Your task to perform on an android device: change keyboard looks Image 0: 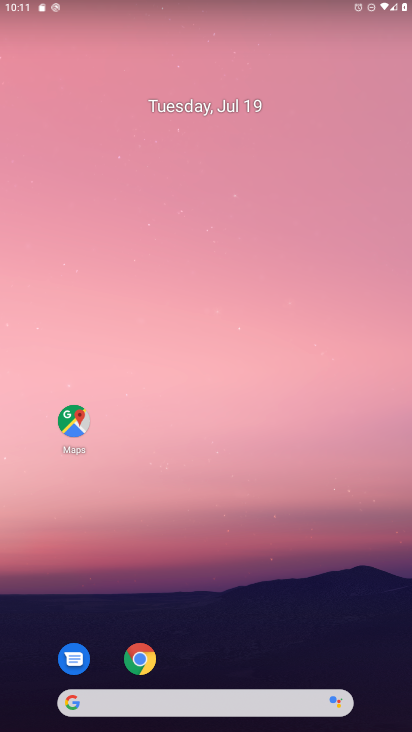
Step 0: drag from (270, 660) to (250, 201)
Your task to perform on an android device: change keyboard looks Image 1: 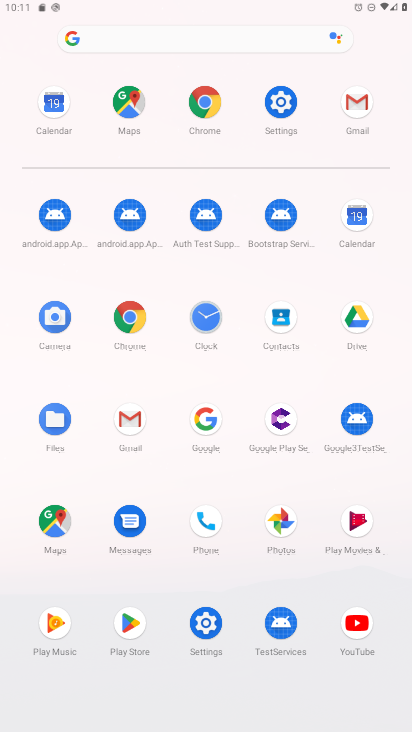
Step 1: click (278, 101)
Your task to perform on an android device: change keyboard looks Image 2: 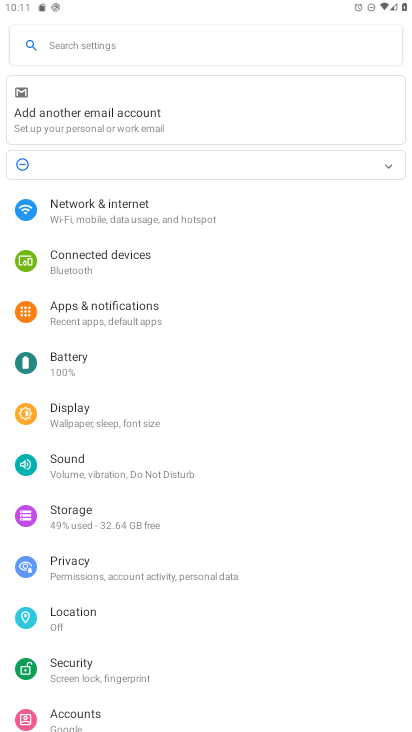
Step 2: drag from (126, 614) to (143, 256)
Your task to perform on an android device: change keyboard looks Image 3: 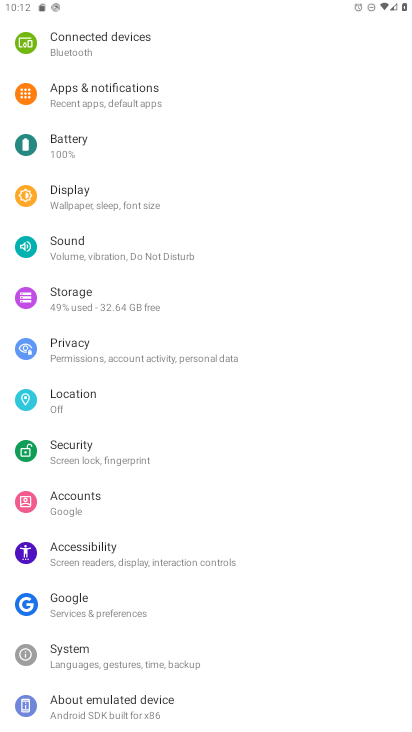
Step 3: click (108, 547)
Your task to perform on an android device: change keyboard looks Image 4: 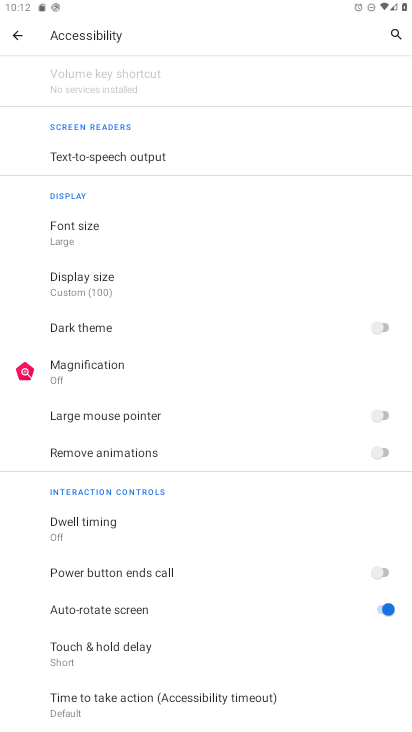
Step 4: click (24, 28)
Your task to perform on an android device: change keyboard looks Image 5: 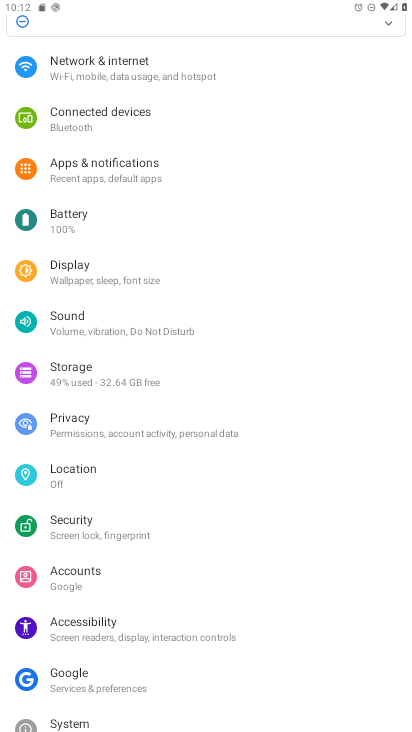
Step 5: drag from (117, 685) to (130, 379)
Your task to perform on an android device: change keyboard looks Image 6: 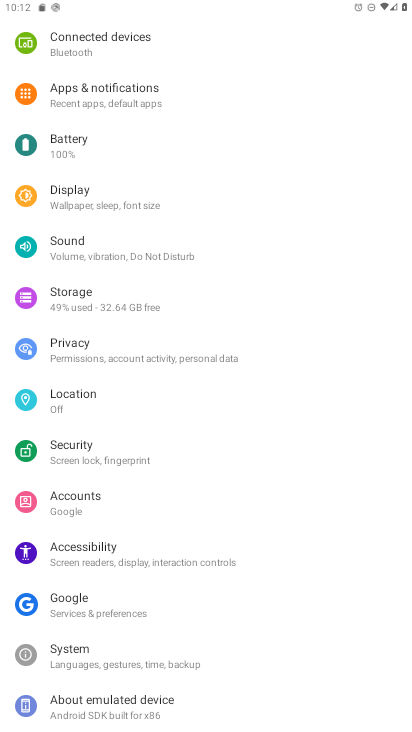
Step 6: click (126, 658)
Your task to perform on an android device: change keyboard looks Image 7: 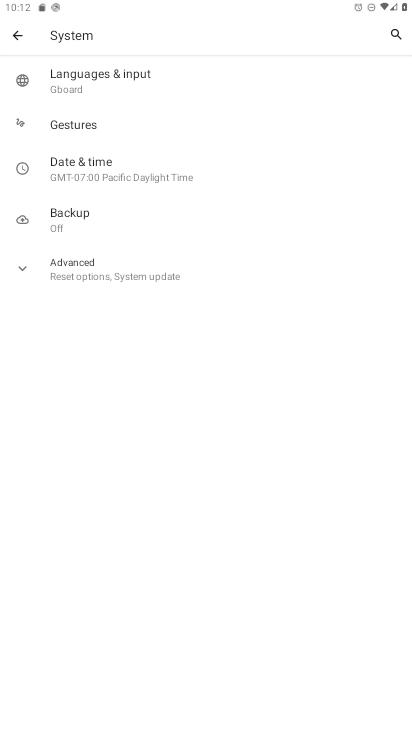
Step 7: click (99, 87)
Your task to perform on an android device: change keyboard looks Image 8: 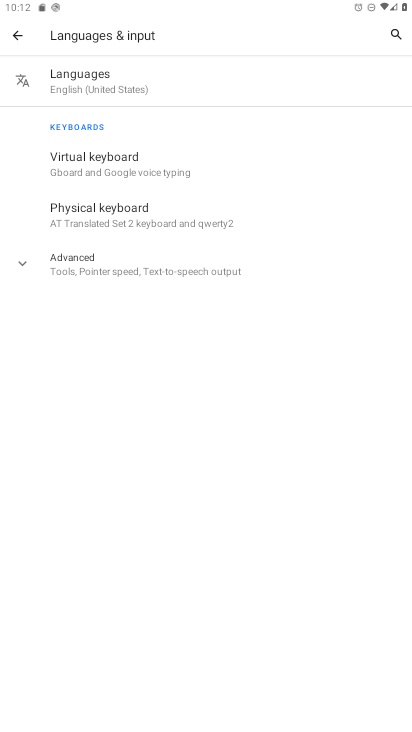
Step 8: click (123, 158)
Your task to perform on an android device: change keyboard looks Image 9: 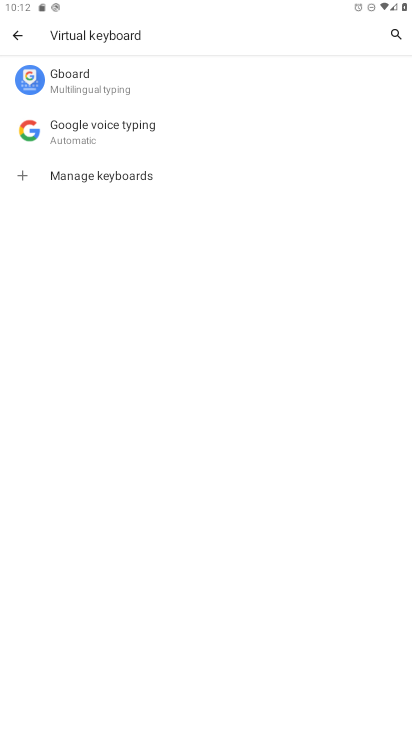
Step 9: click (96, 66)
Your task to perform on an android device: change keyboard looks Image 10: 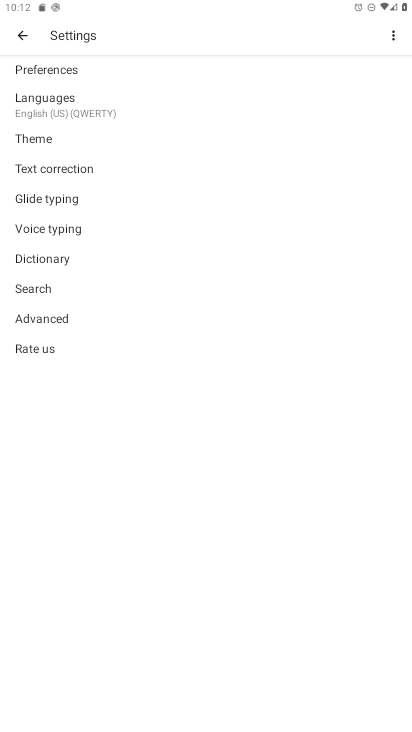
Step 10: click (44, 136)
Your task to perform on an android device: change keyboard looks Image 11: 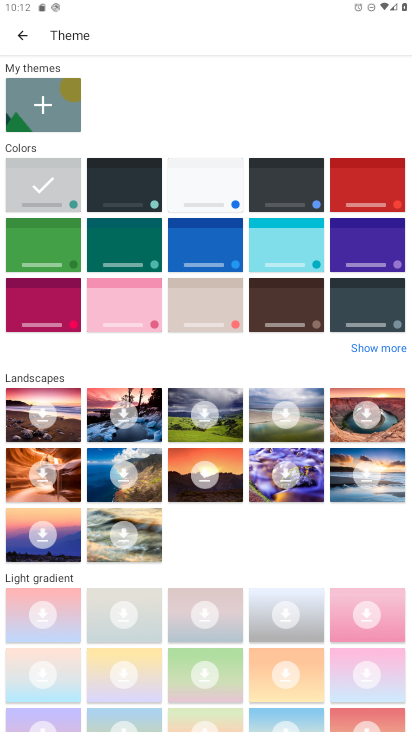
Step 11: click (122, 189)
Your task to perform on an android device: change keyboard looks Image 12: 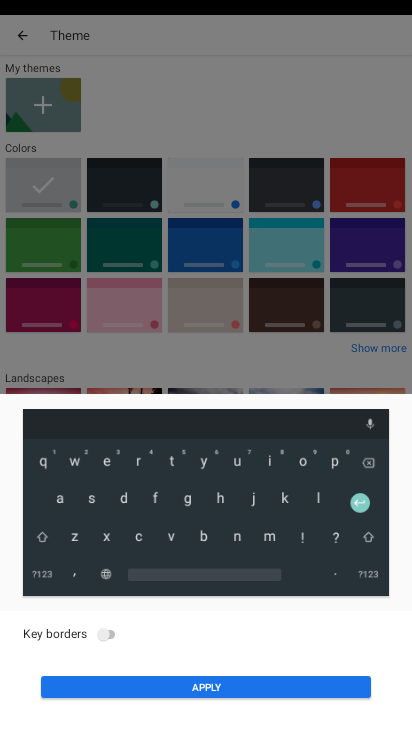
Step 12: click (233, 681)
Your task to perform on an android device: change keyboard looks Image 13: 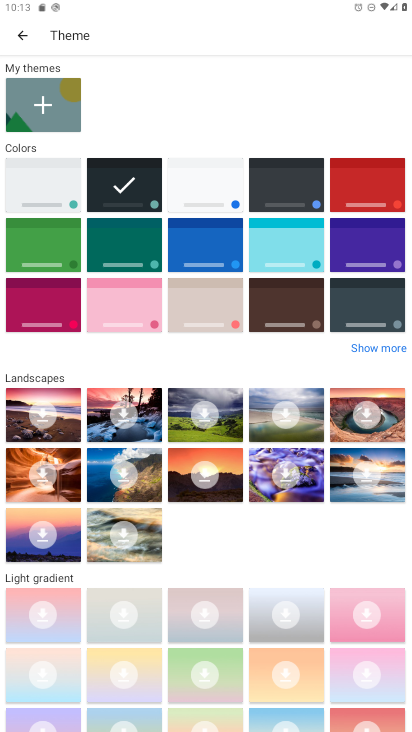
Step 13: task complete